Your task to perform on an android device: make emails show in primary in the gmail app Image 0: 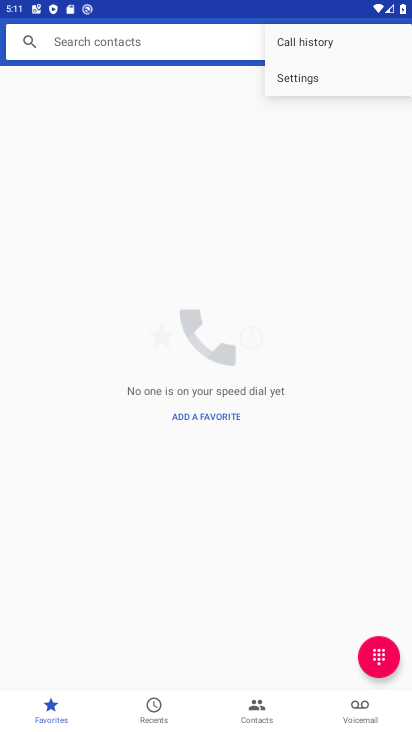
Step 0: press home button
Your task to perform on an android device: make emails show in primary in the gmail app Image 1: 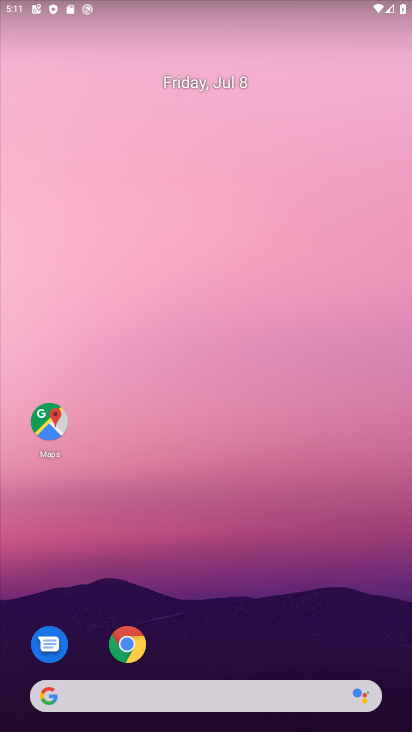
Step 1: drag from (171, 516) to (304, 68)
Your task to perform on an android device: make emails show in primary in the gmail app Image 2: 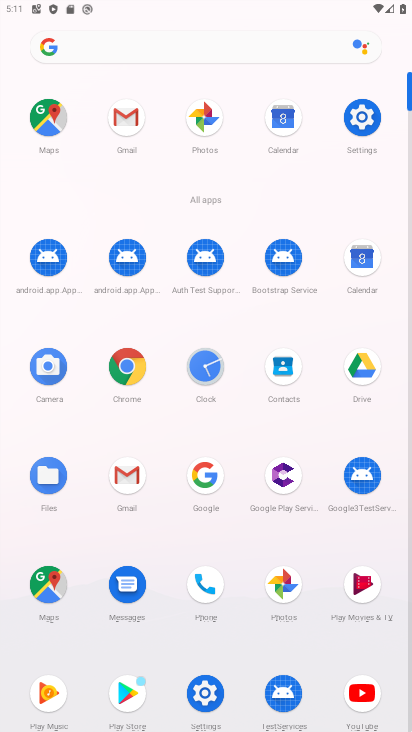
Step 2: click (126, 481)
Your task to perform on an android device: make emails show in primary in the gmail app Image 3: 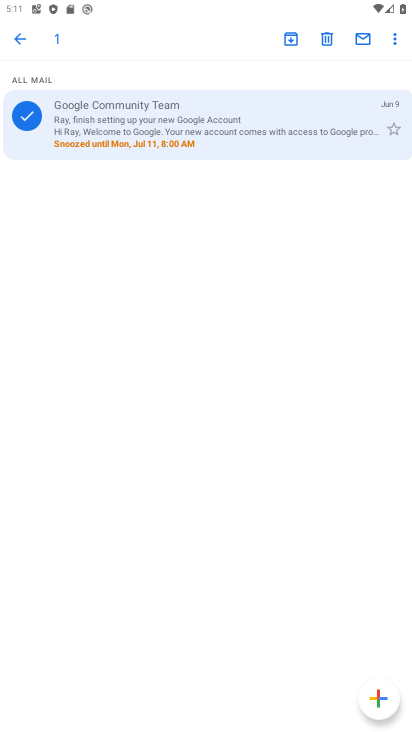
Step 3: click (394, 37)
Your task to perform on an android device: make emails show in primary in the gmail app Image 4: 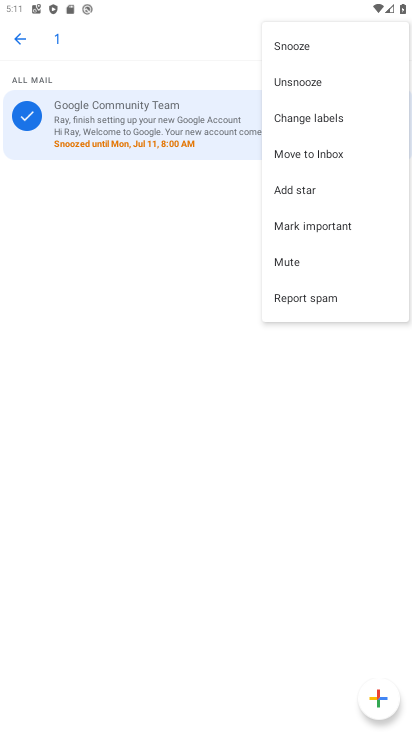
Step 4: click (185, 268)
Your task to perform on an android device: make emails show in primary in the gmail app Image 5: 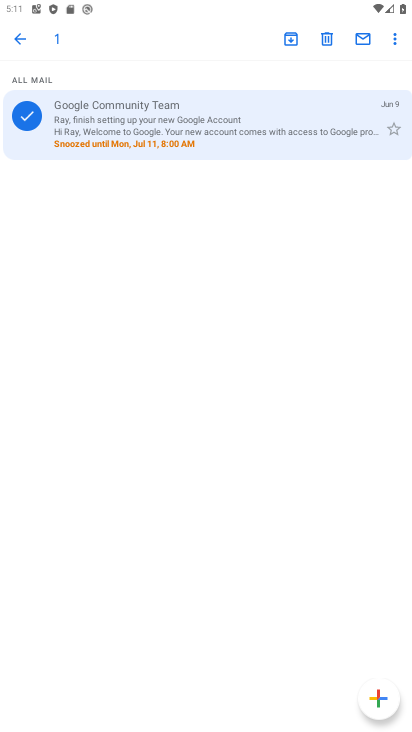
Step 5: click (20, 39)
Your task to perform on an android device: make emails show in primary in the gmail app Image 6: 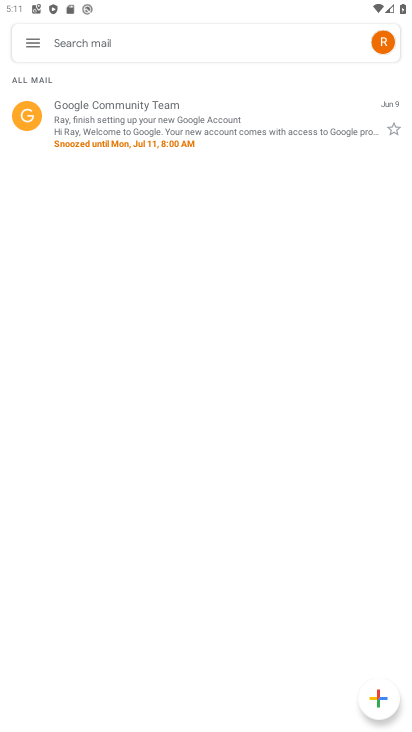
Step 6: click (20, 39)
Your task to perform on an android device: make emails show in primary in the gmail app Image 7: 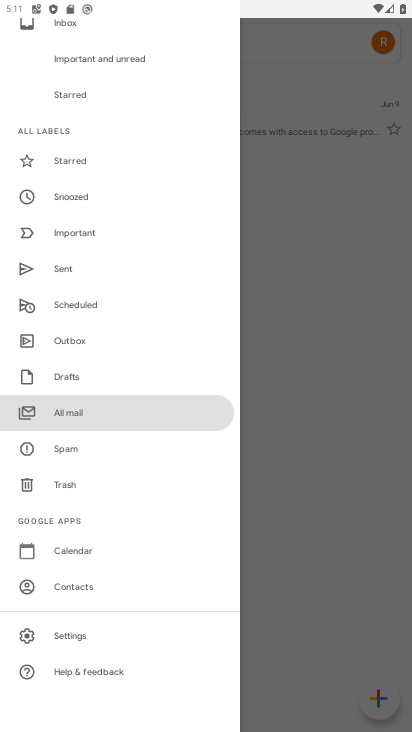
Step 7: drag from (67, 280) to (61, 595)
Your task to perform on an android device: make emails show in primary in the gmail app Image 8: 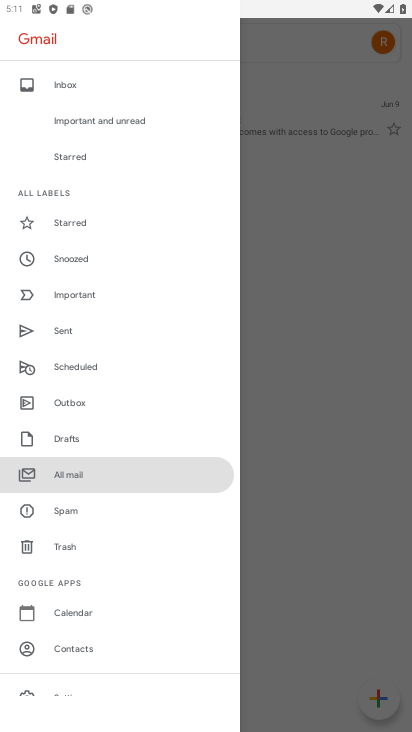
Step 8: click (73, 90)
Your task to perform on an android device: make emails show in primary in the gmail app Image 9: 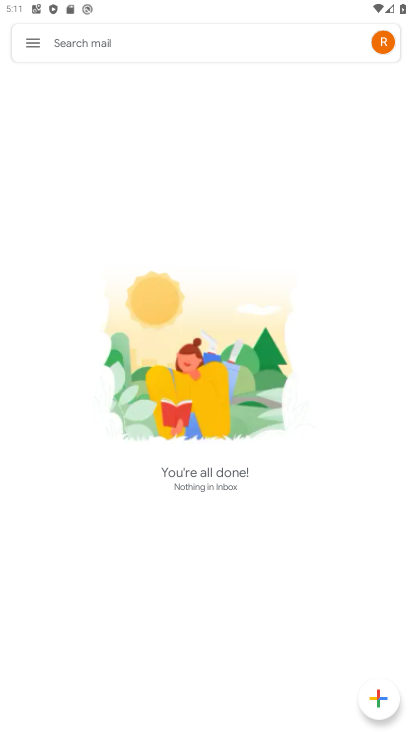
Step 9: click (22, 42)
Your task to perform on an android device: make emails show in primary in the gmail app Image 10: 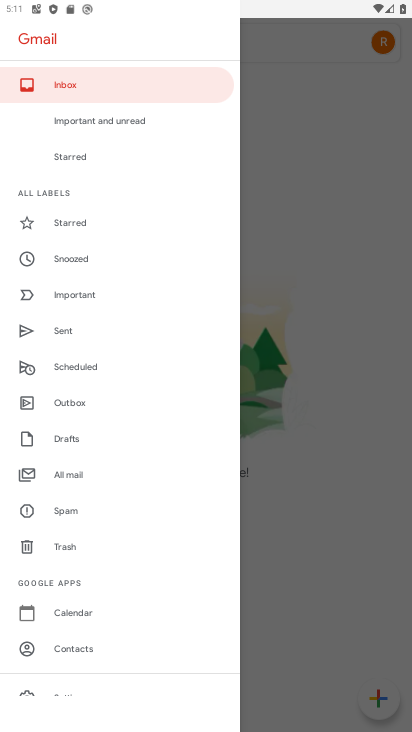
Step 10: click (73, 118)
Your task to perform on an android device: make emails show in primary in the gmail app Image 11: 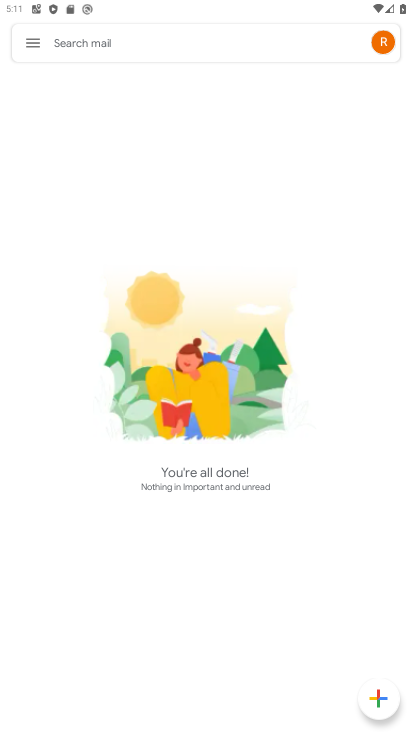
Step 11: click (20, 43)
Your task to perform on an android device: make emails show in primary in the gmail app Image 12: 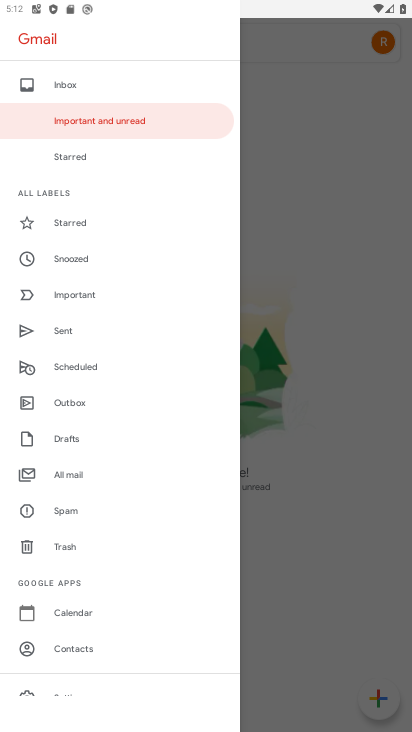
Step 12: click (318, 123)
Your task to perform on an android device: make emails show in primary in the gmail app Image 13: 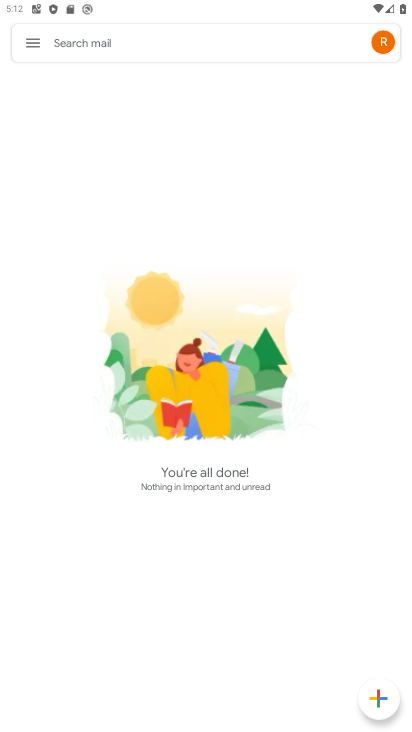
Step 13: click (272, 44)
Your task to perform on an android device: make emails show in primary in the gmail app Image 14: 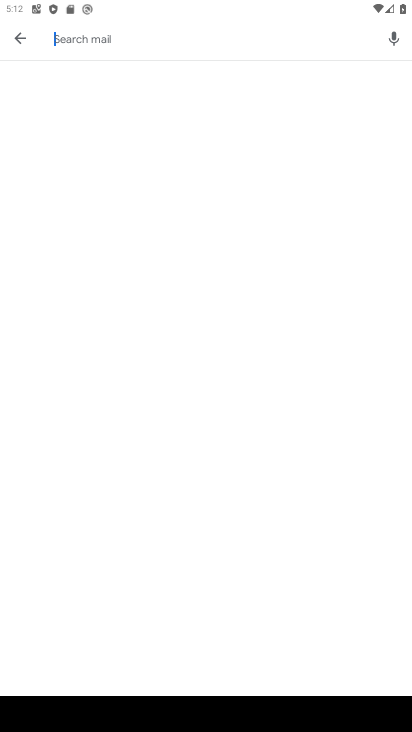
Step 14: type "primary"
Your task to perform on an android device: make emails show in primary in the gmail app Image 15: 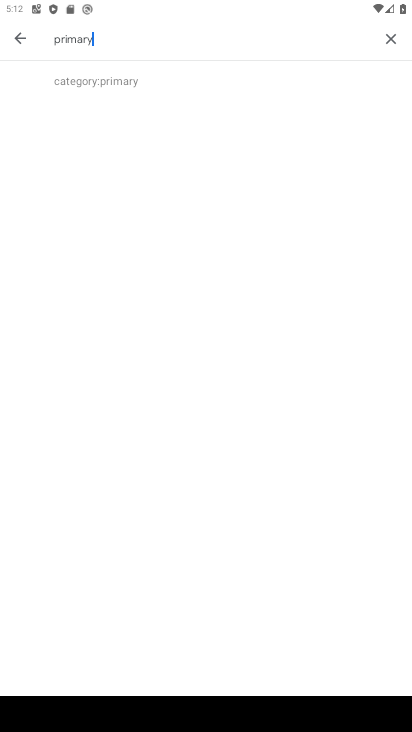
Step 15: click (231, 94)
Your task to perform on an android device: make emails show in primary in the gmail app Image 16: 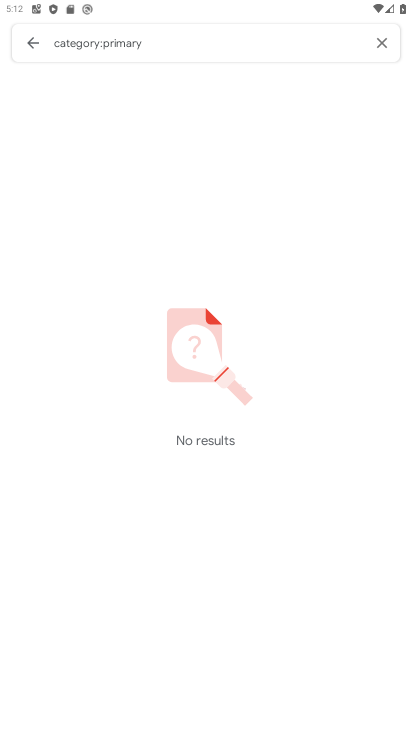
Step 16: click (34, 45)
Your task to perform on an android device: make emails show in primary in the gmail app Image 17: 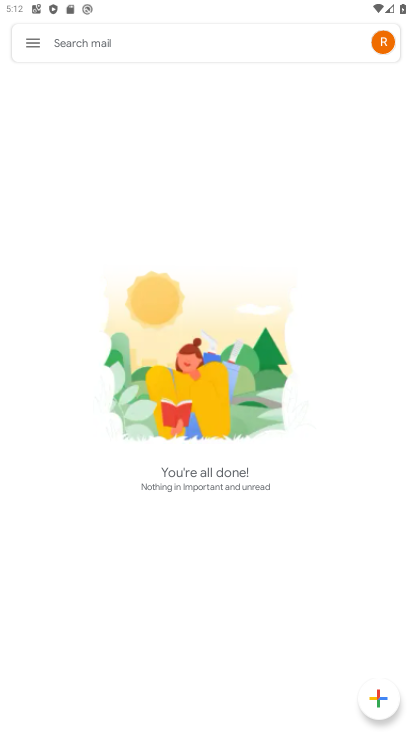
Step 17: click (27, 36)
Your task to perform on an android device: make emails show in primary in the gmail app Image 18: 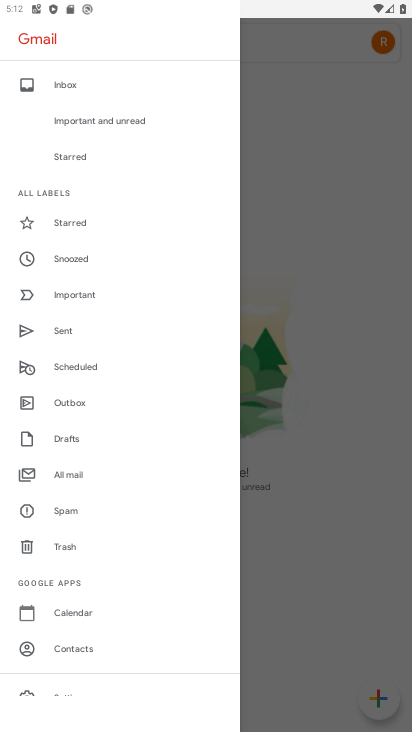
Step 18: click (375, 97)
Your task to perform on an android device: make emails show in primary in the gmail app Image 19: 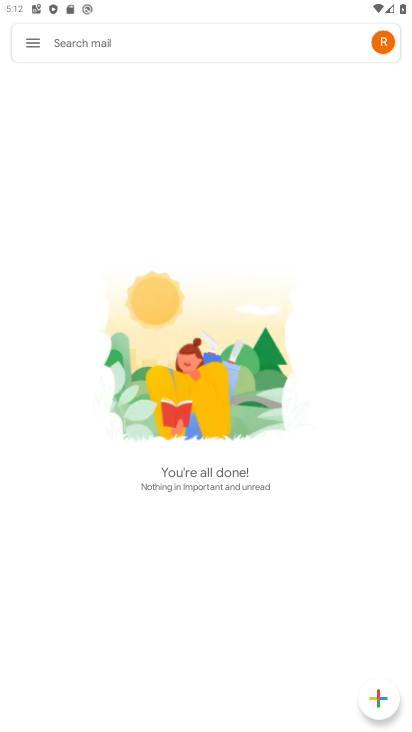
Step 19: task complete